Your task to perform on an android device: Turn off the flashlight Image 0: 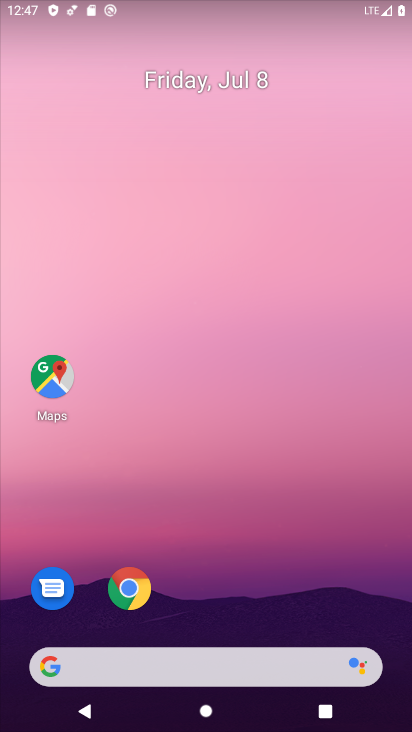
Step 0: drag from (216, 576) to (300, 15)
Your task to perform on an android device: Turn off the flashlight Image 1: 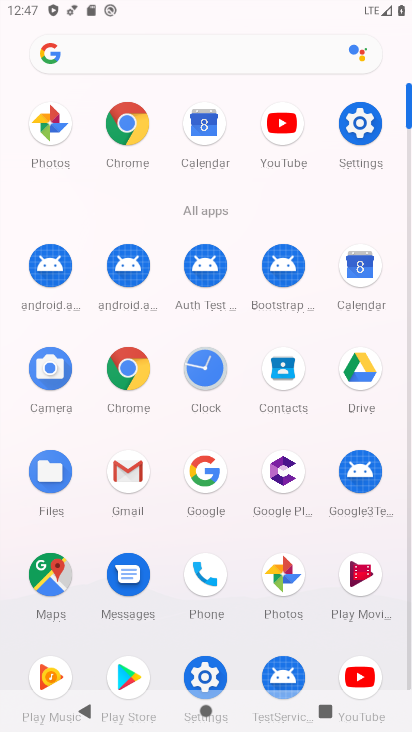
Step 1: click (205, 674)
Your task to perform on an android device: Turn off the flashlight Image 2: 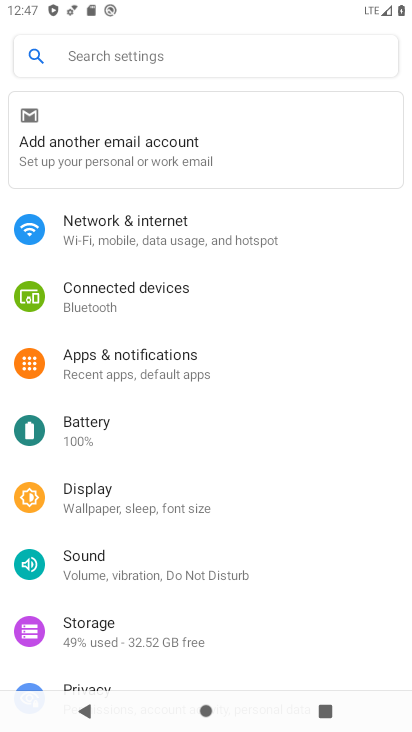
Step 2: drag from (157, 556) to (200, 304)
Your task to perform on an android device: Turn off the flashlight Image 3: 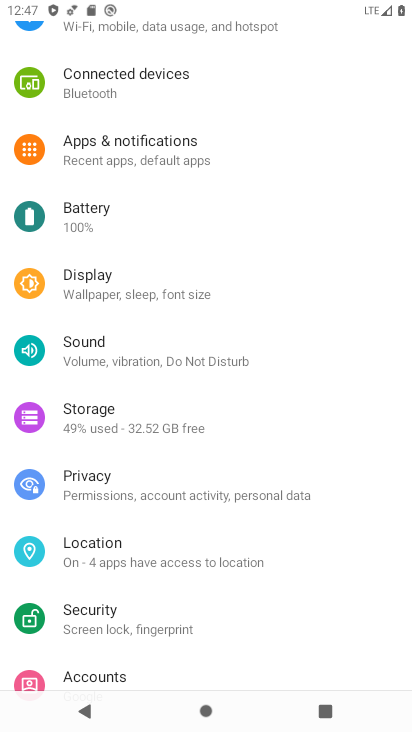
Step 3: drag from (146, 188) to (148, 493)
Your task to perform on an android device: Turn off the flashlight Image 4: 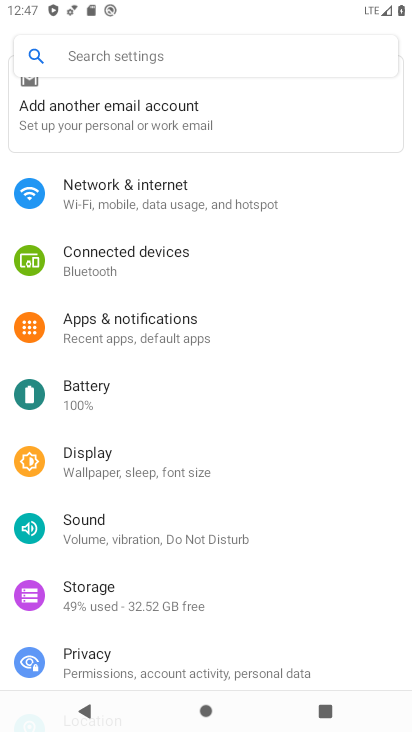
Step 4: click (230, 59)
Your task to perform on an android device: Turn off the flashlight Image 5: 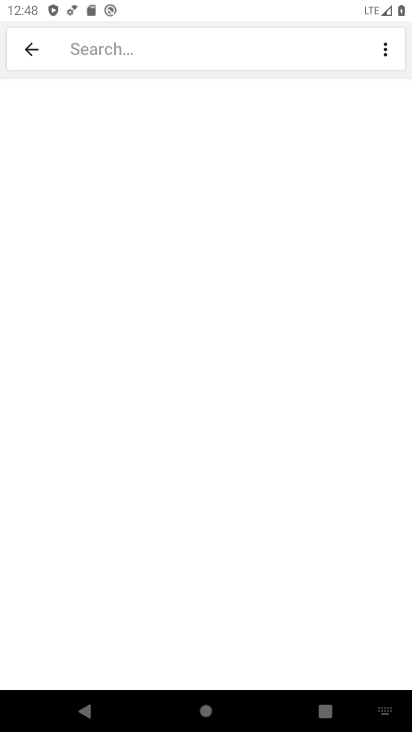
Step 5: type "flashlight"
Your task to perform on an android device: Turn off the flashlight Image 6: 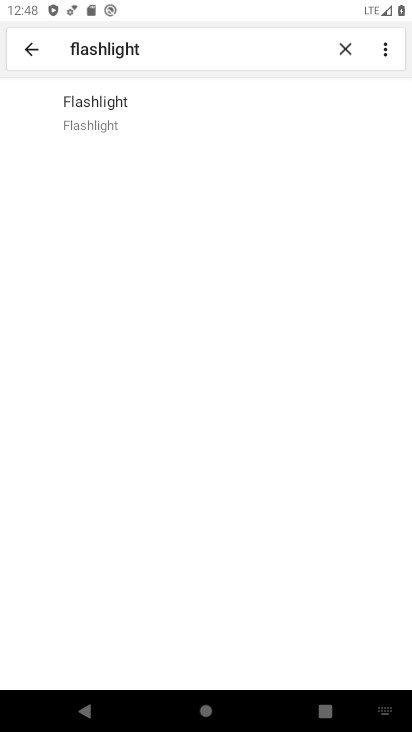
Step 6: click (217, 120)
Your task to perform on an android device: Turn off the flashlight Image 7: 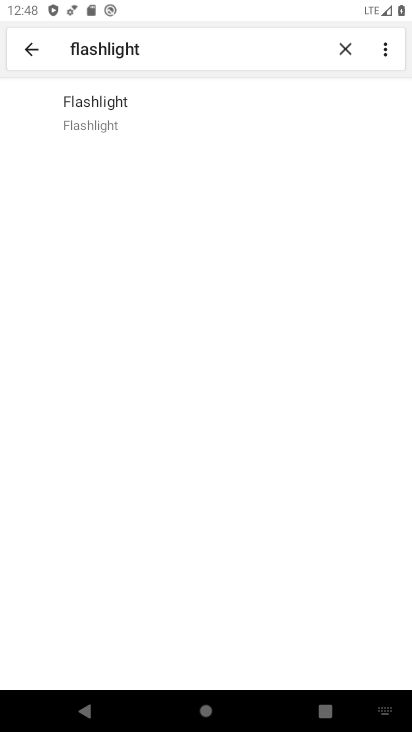
Step 7: task complete